Your task to perform on an android device: open app "Microsoft Outlook" Image 0: 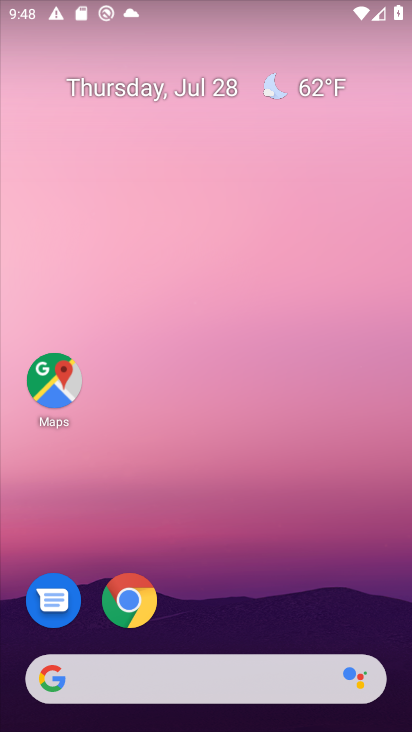
Step 0: drag from (250, 646) to (262, 36)
Your task to perform on an android device: open app "Microsoft Outlook" Image 1: 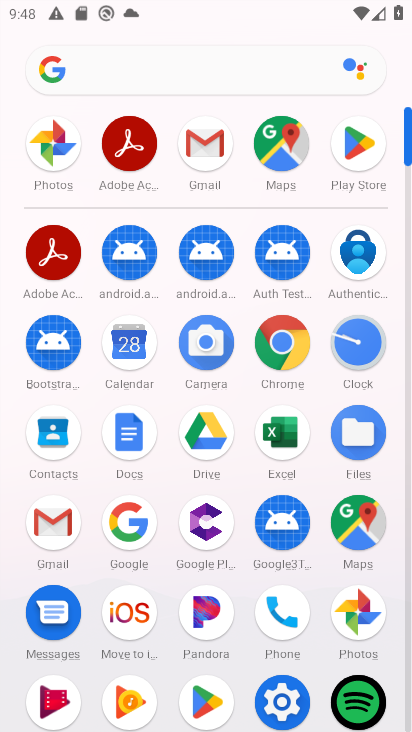
Step 1: click (359, 144)
Your task to perform on an android device: open app "Microsoft Outlook" Image 2: 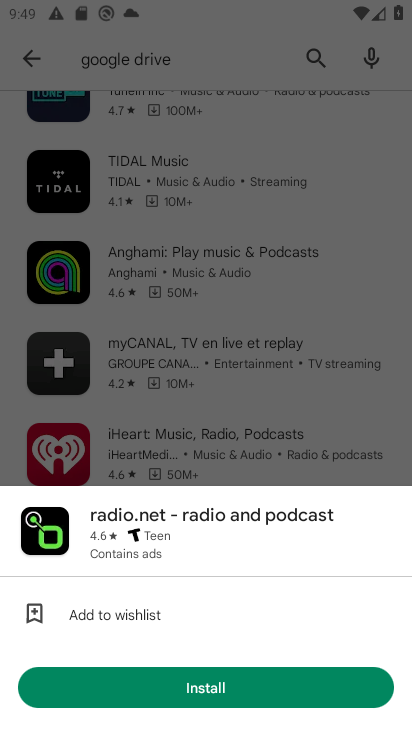
Step 2: click (325, 51)
Your task to perform on an android device: open app "Microsoft Outlook" Image 3: 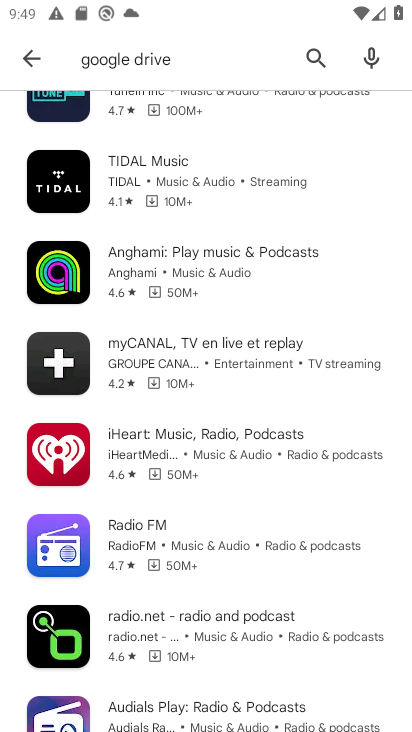
Step 3: click (318, 55)
Your task to perform on an android device: open app "Microsoft Outlook" Image 4: 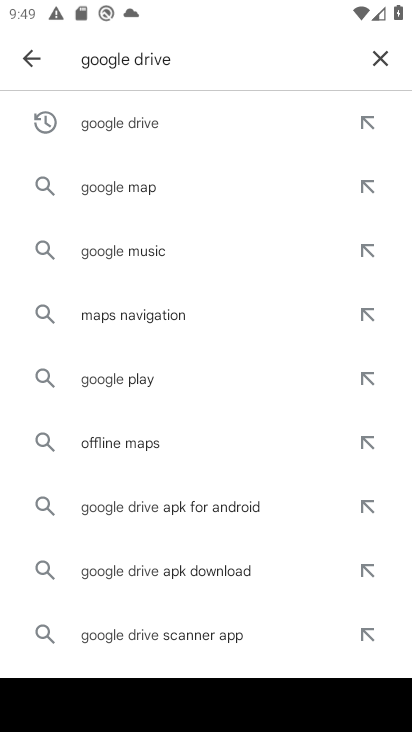
Step 4: click (376, 57)
Your task to perform on an android device: open app "Microsoft Outlook" Image 5: 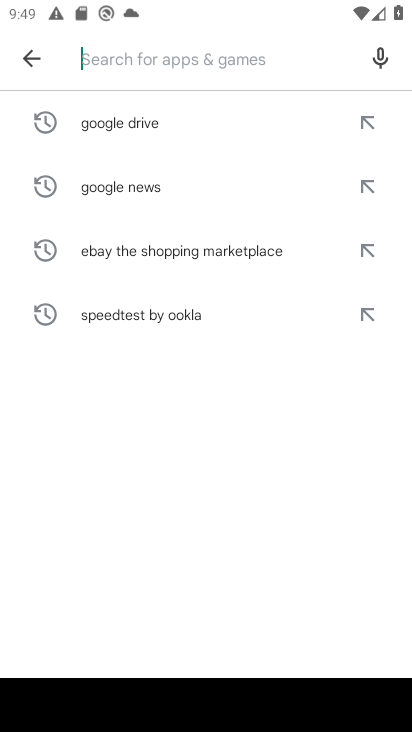
Step 5: type "Microsoft Outlook"
Your task to perform on an android device: open app "Microsoft Outlook" Image 6: 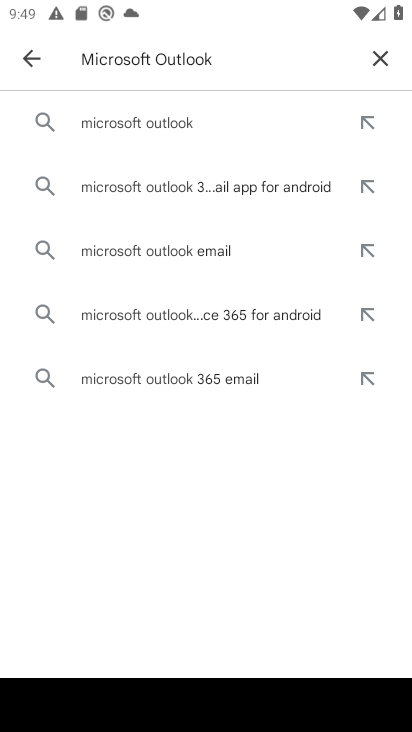
Step 6: click (170, 129)
Your task to perform on an android device: open app "Microsoft Outlook" Image 7: 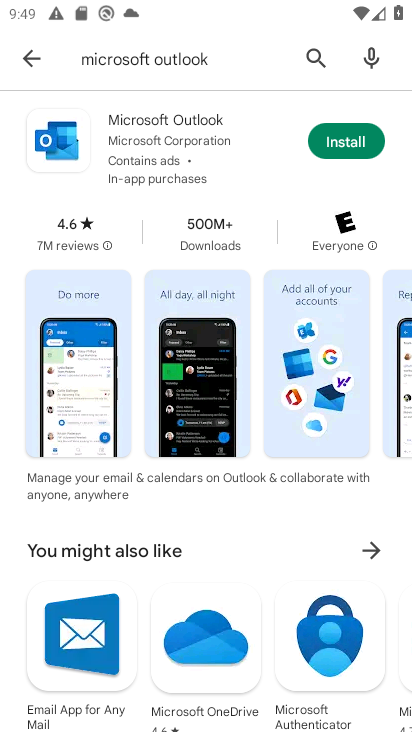
Step 7: task complete